Your task to perform on an android device: allow notifications from all sites in the chrome app Image 0: 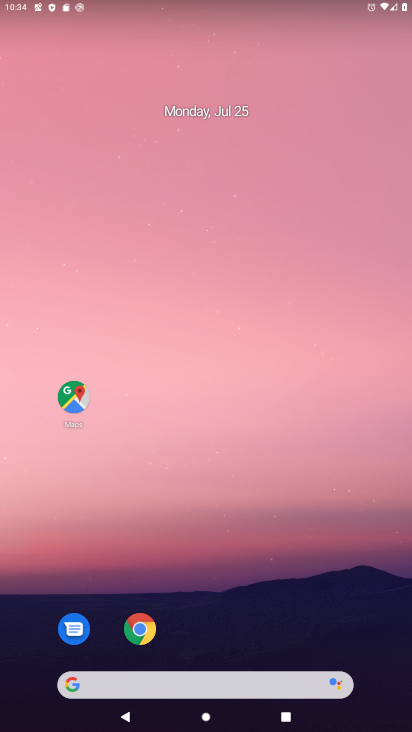
Step 0: click (139, 625)
Your task to perform on an android device: allow notifications from all sites in the chrome app Image 1: 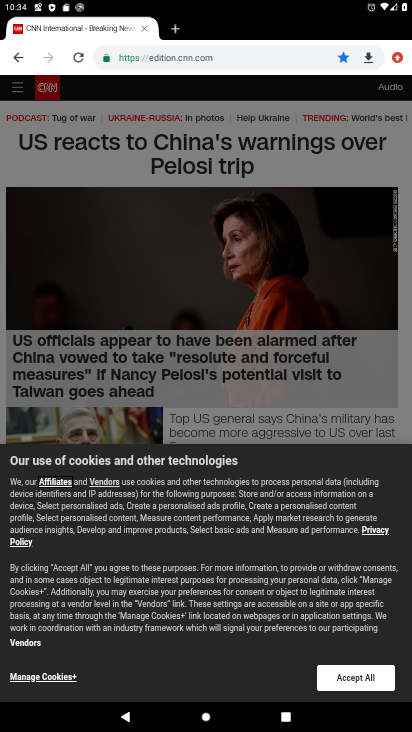
Step 1: click (397, 57)
Your task to perform on an android device: allow notifications from all sites in the chrome app Image 2: 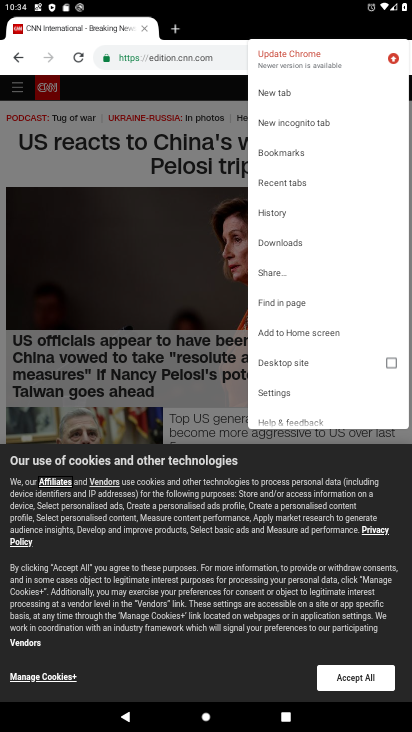
Step 2: click (267, 396)
Your task to perform on an android device: allow notifications from all sites in the chrome app Image 3: 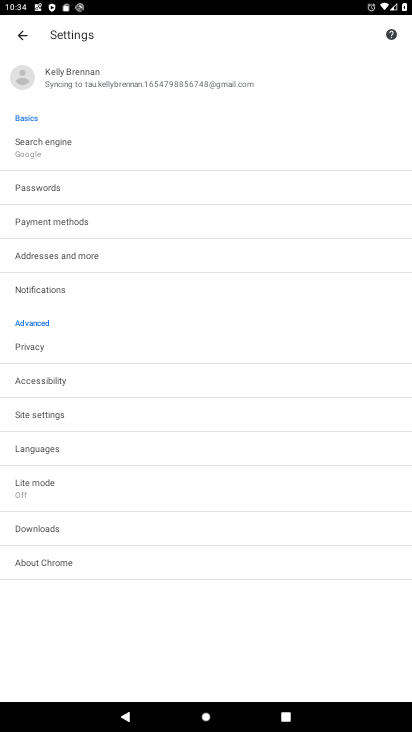
Step 3: click (34, 289)
Your task to perform on an android device: allow notifications from all sites in the chrome app Image 4: 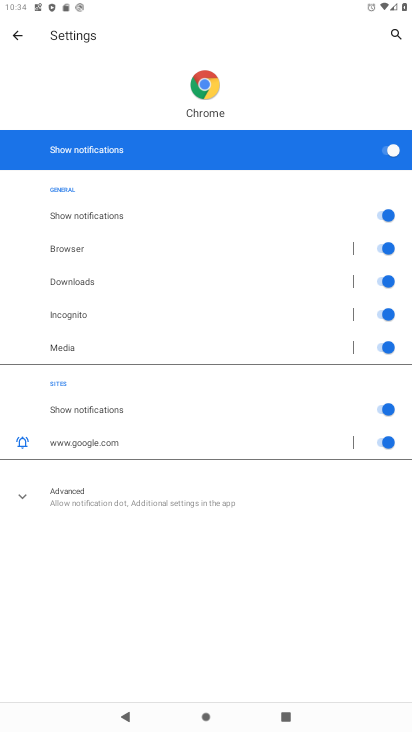
Step 4: task complete